Your task to perform on an android device: toggle data saver in the chrome app Image 0: 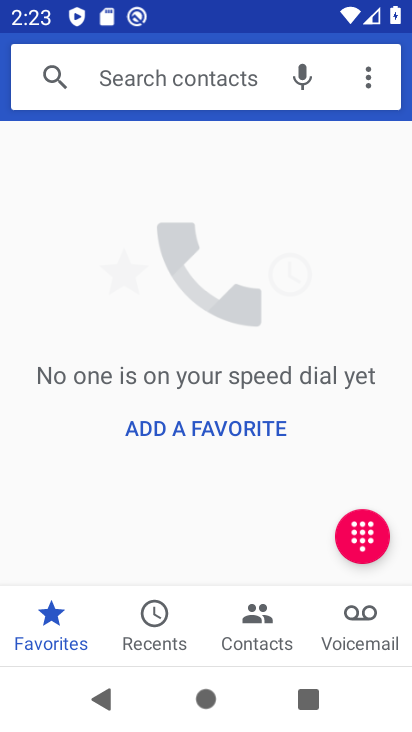
Step 0: press home button
Your task to perform on an android device: toggle data saver in the chrome app Image 1: 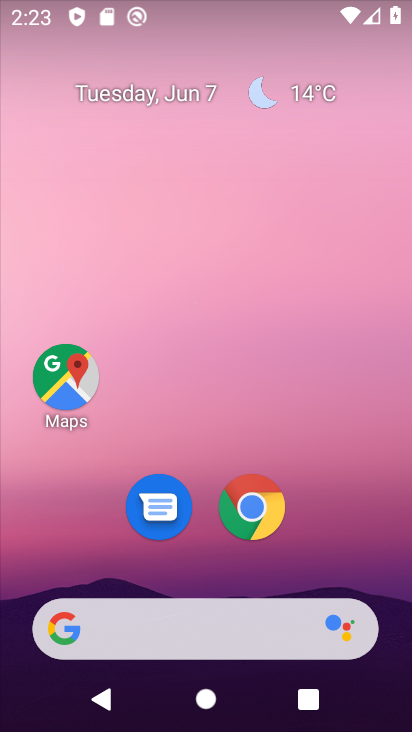
Step 1: click (253, 503)
Your task to perform on an android device: toggle data saver in the chrome app Image 2: 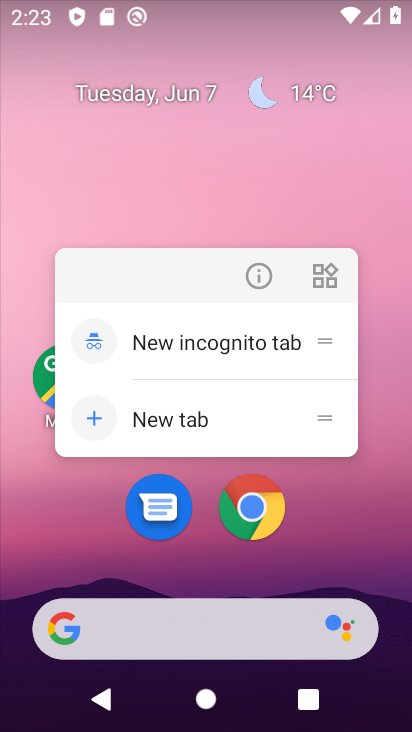
Step 2: click (253, 502)
Your task to perform on an android device: toggle data saver in the chrome app Image 3: 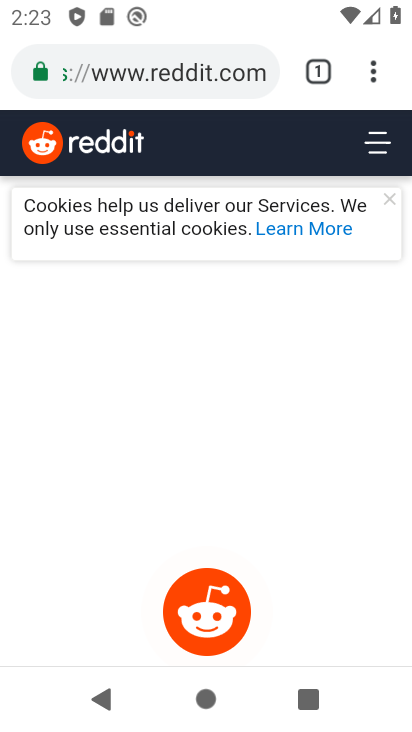
Step 3: drag from (372, 71) to (168, 508)
Your task to perform on an android device: toggle data saver in the chrome app Image 4: 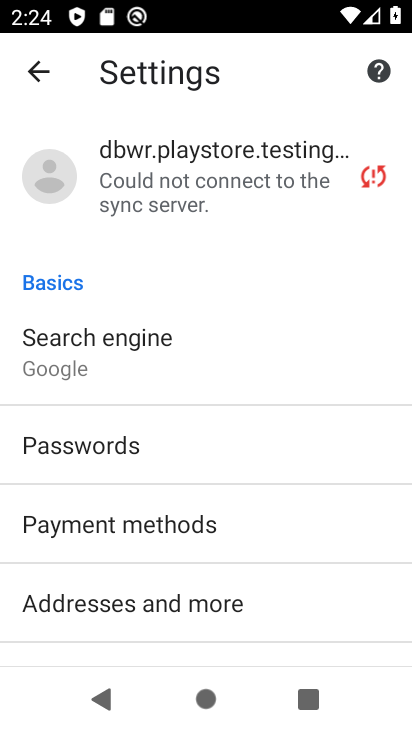
Step 4: drag from (192, 534) to (274, 131)
Your task to perform on an android device: toggle data saver in the chrome app Image 5: 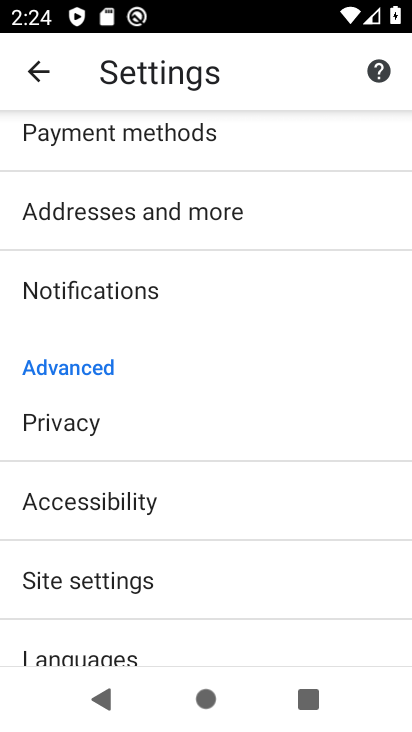
Step 5: drag from (208, 516) to (264, 144)
Your task to perform on an android device: toggle data saver in the chrome app Image 6: 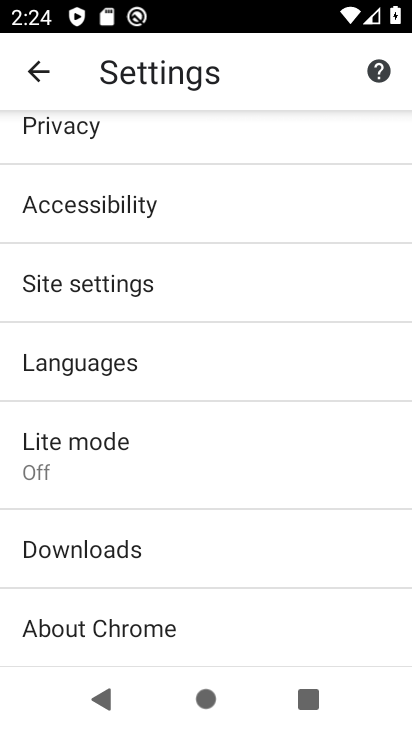
Step 6: click (168, 466)
Your task to perform on an android device: toggle data saver in the chrome app Image 7: 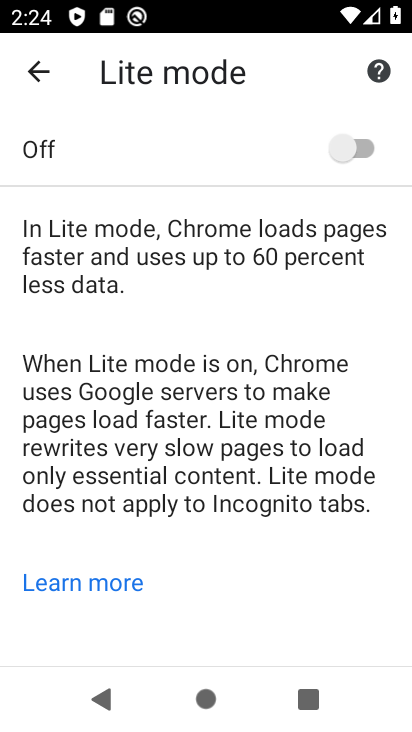
Step 7: click (353, 145)
Your task to perform on an android device: toggle data saver in the chrome app Image 8: 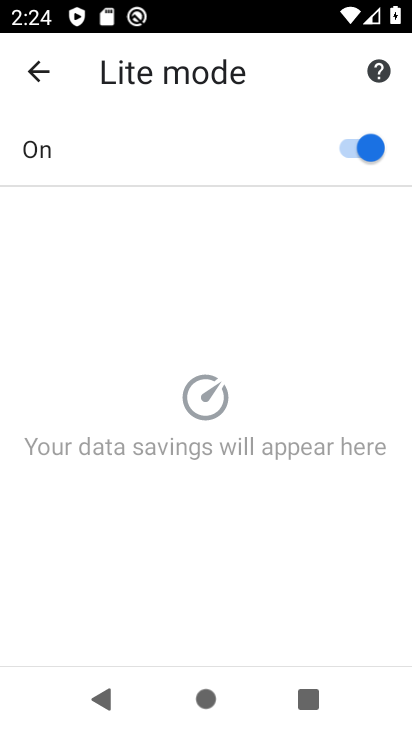
Step 8: task complete